Your task to perform on an android device: uninstall "Life360: Find Family & Friends" Image 0: 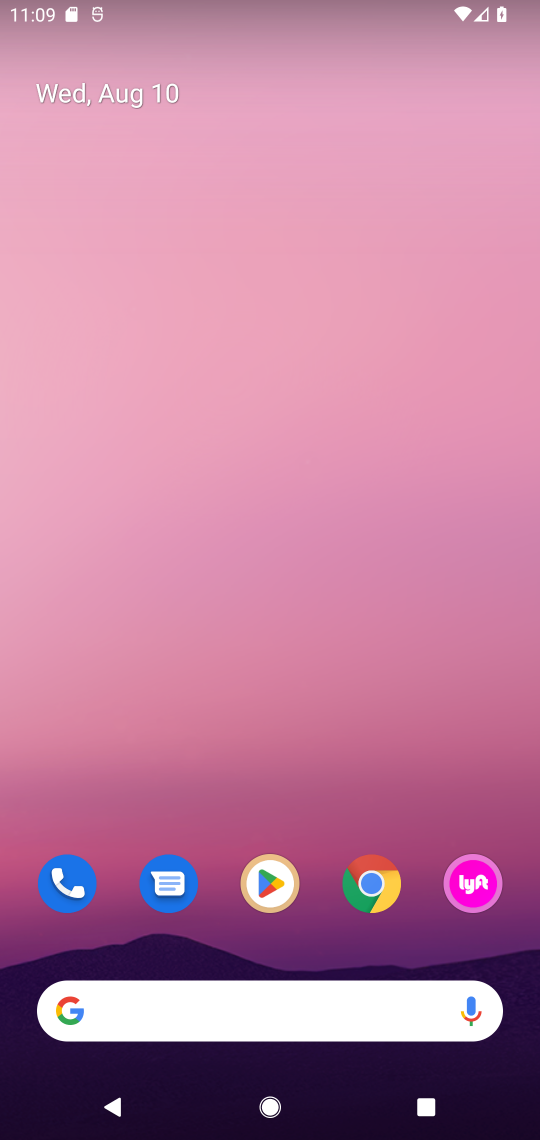
Step 0: drag from (325, 896) to (291, 90)
Your task to perform on an android device: uninstall "Life360: Find Family & Friends" Image 1: 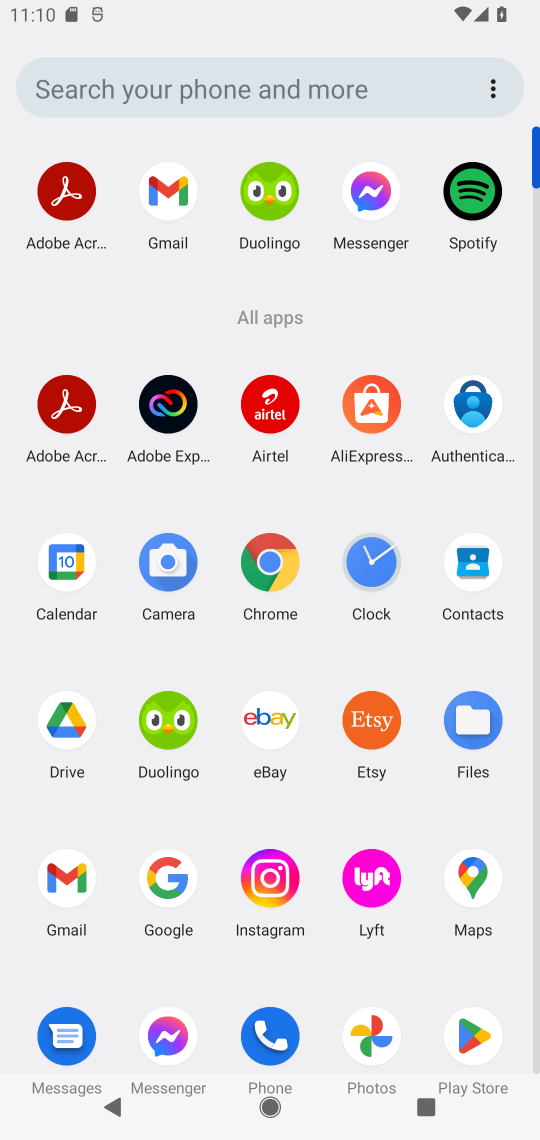
Step 1: click (462, 1041)
Your task to perform on an android device: uninstall "Life360: Find Family & Friends" Image 2: 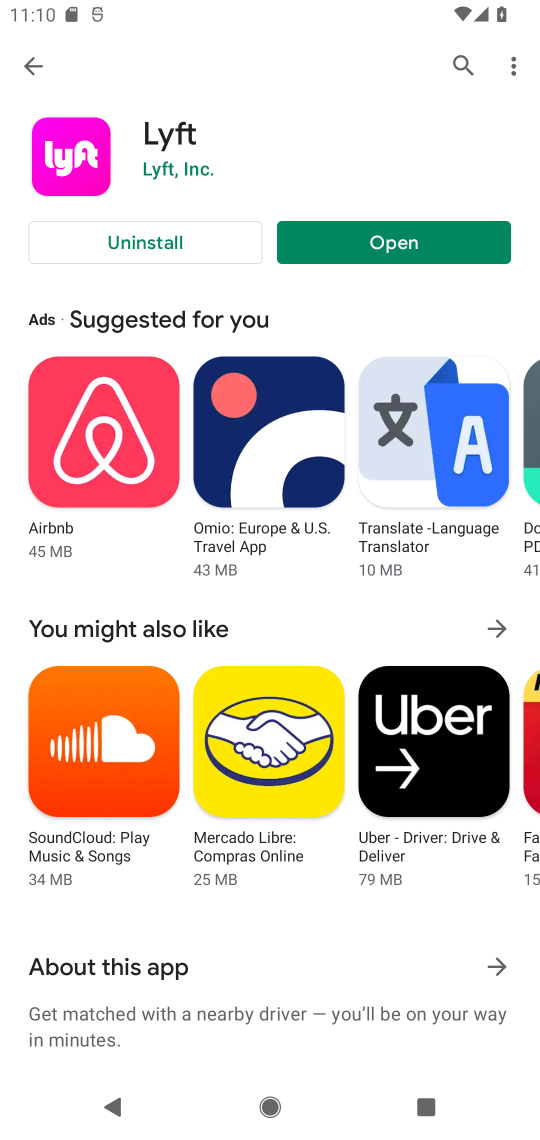
Step 2: click (469, 56)
Your task to perform on an android device: uninstall "Life360: Find Family & Friends" Image 3: 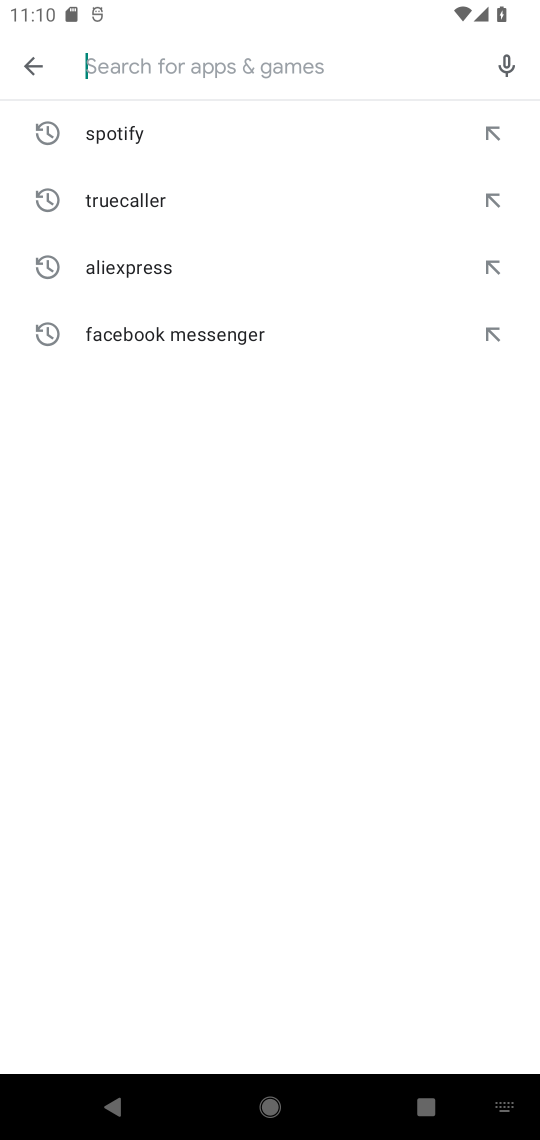
Step 3: type "Life360: Find Family & Friends"
Your task to perform on an android device: uninstall "Life360: Find Family & Friends" Image 4: 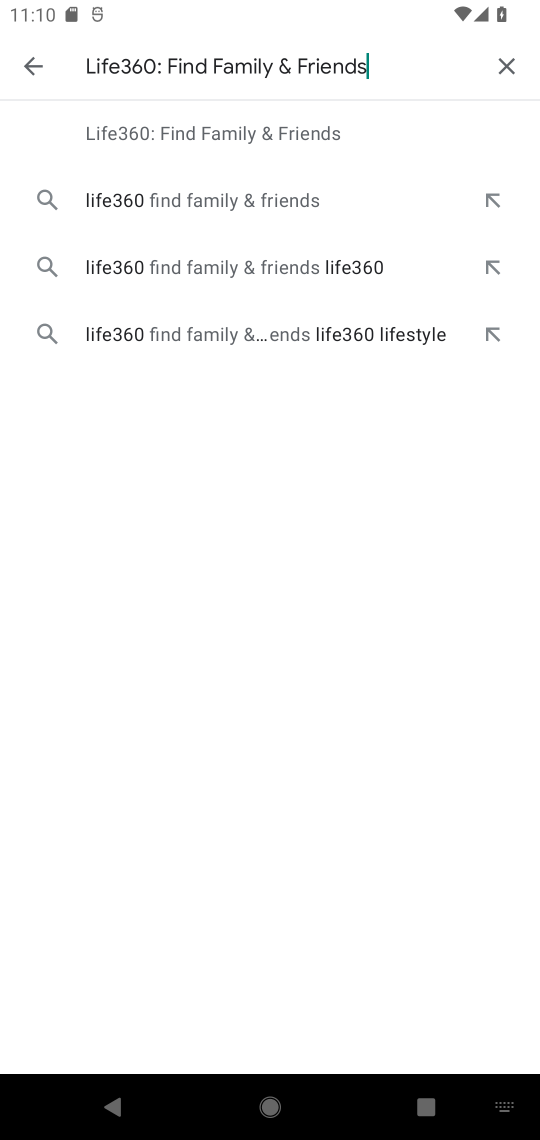
Step 4: type ""
Your task to perform on an android device: uninstall "Life360: Find Family & Friends" Image 5: 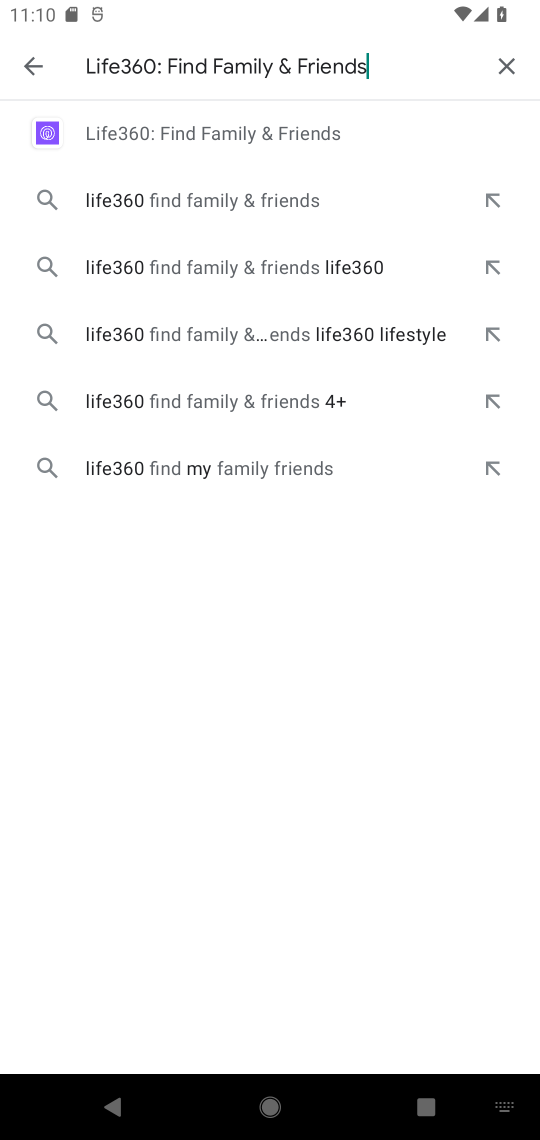
Step 5: click (143, 140)
Your task to perform on an android device: uninstall "Life360: Find Family & Friends" Image 6: 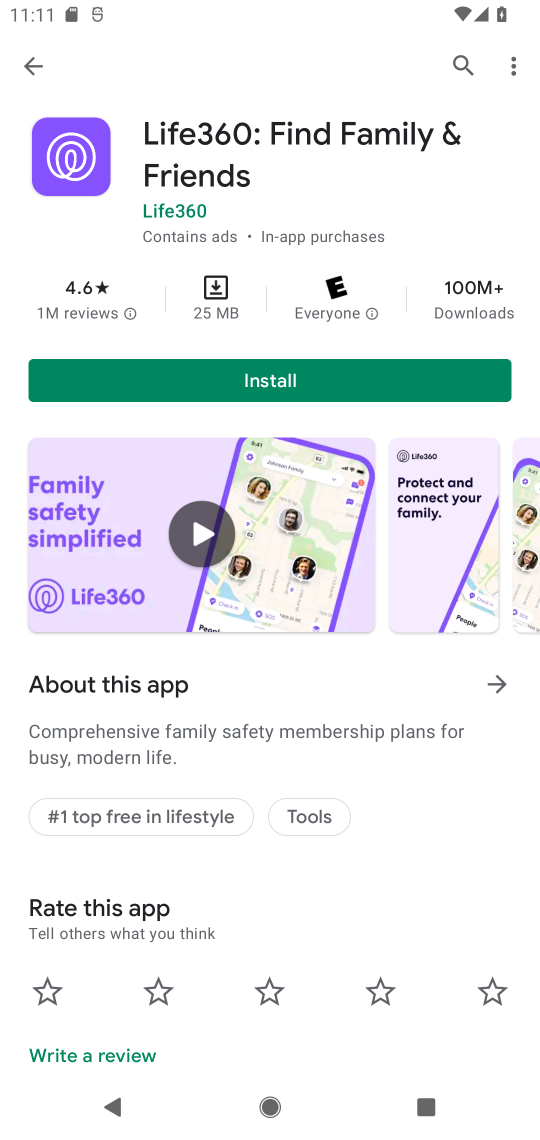
Step 6: task complete